Your task to perform on an android device: toggle data saver in the chrome app Image 0: 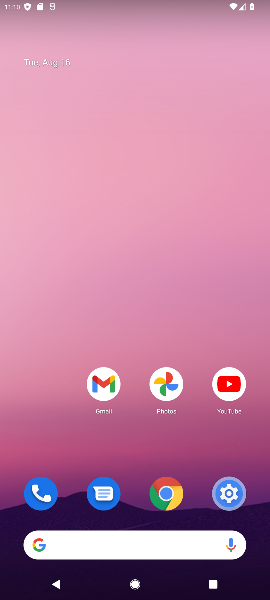
Step 0: click (175, 494)
Your task to perform on an android device: toggle data saver in the chrome app Image 1: 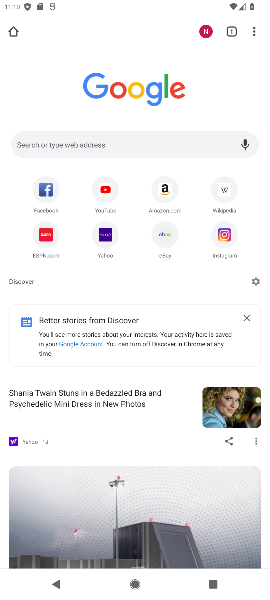
Step 1: click (252, 28)
Your task to perform on an android device: toggle data saver in the chrome app Image 2: 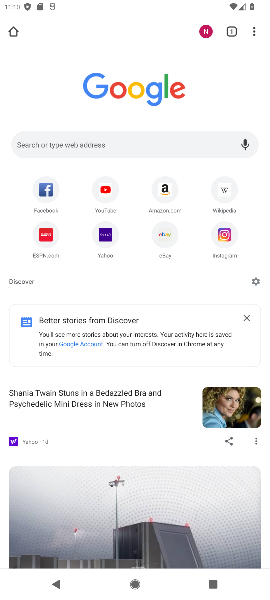
Step 2: click (248, 33)
Your task to perform on an android device: toggle data saver in the chrome app Image 3: 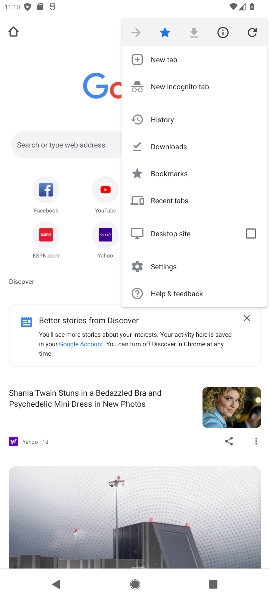
Step 3: click (165, 268)
Your task to perform on an android device: toggle data saver in the chrome app Image 4: 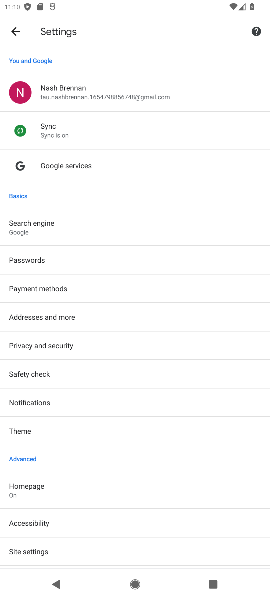
Step 4: drag from (33, 516) to (50, 240)
Your task to perform on an android device: toggle data saver in the chrome app Image 5: 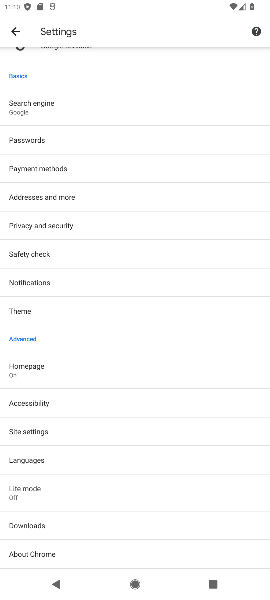
Step 5: click (21, 495)
Your task to perform on an android device: toggle data saver in the chrome app Image 6: 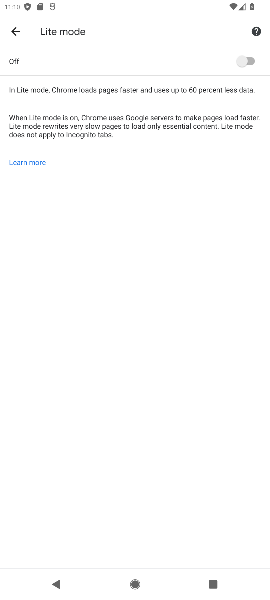
Step 6: click (246, 55)
Your task to perform on an android device: toggle data saver in the chrome app Image 7: 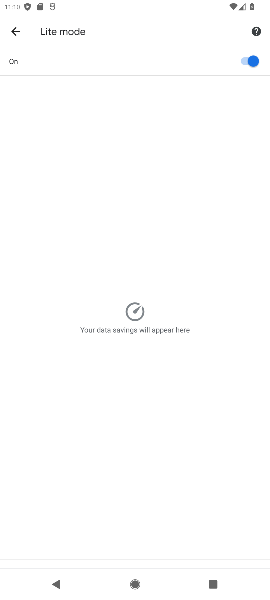
Step 7: task complete